Your task to perform on an android device: Open display settings Image 0: 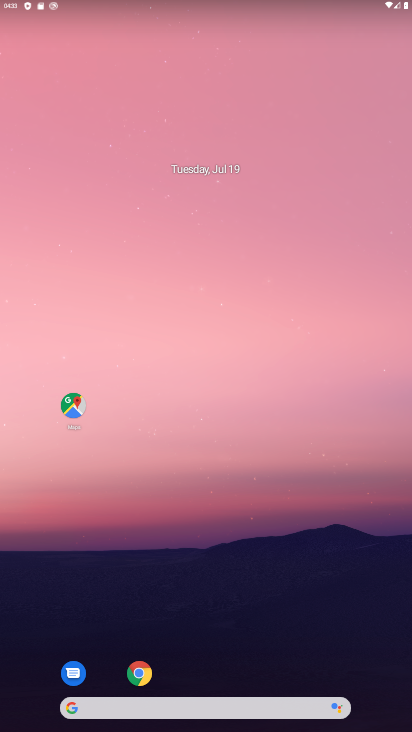
Step 0: drag from (236, 679) to (301, 1)
Your task to perform on an android device: Open display settings Image 1: 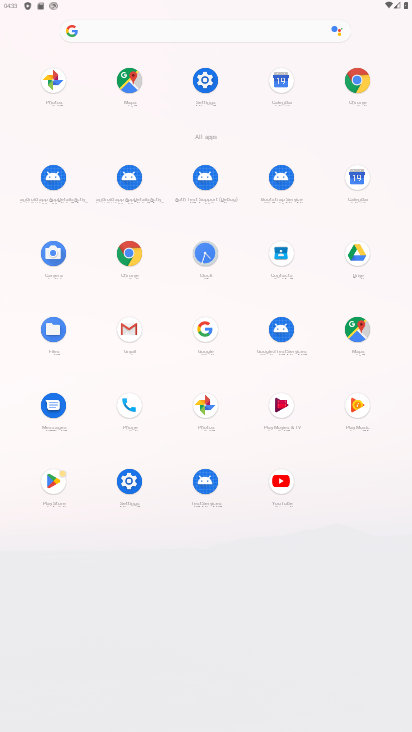
Step 1: click (125, 567)
Your task to perform on an android device: Open display settings Image 2: 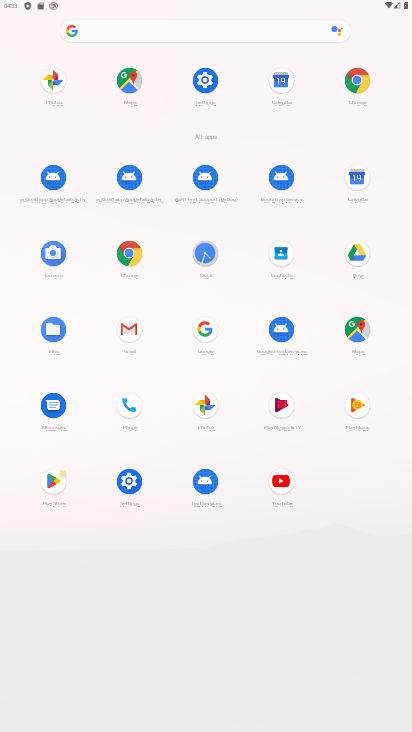
Step 2: click (128, 497)
Your task to perform on an android device: Open display settings Image 3: 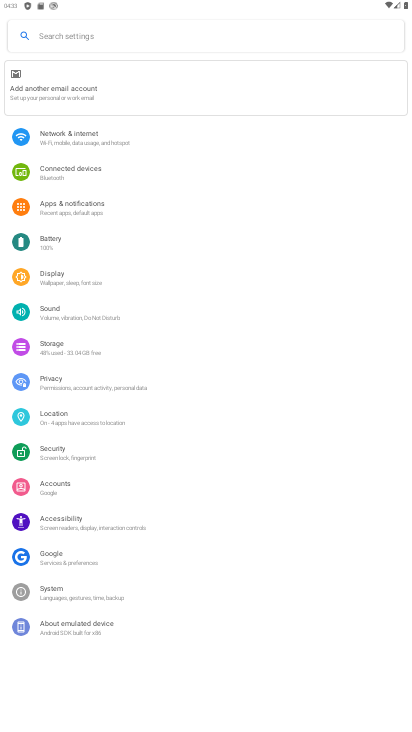
Step 3: click (64, 275)
Your task to perform on an android device: Open display settings Image 4: 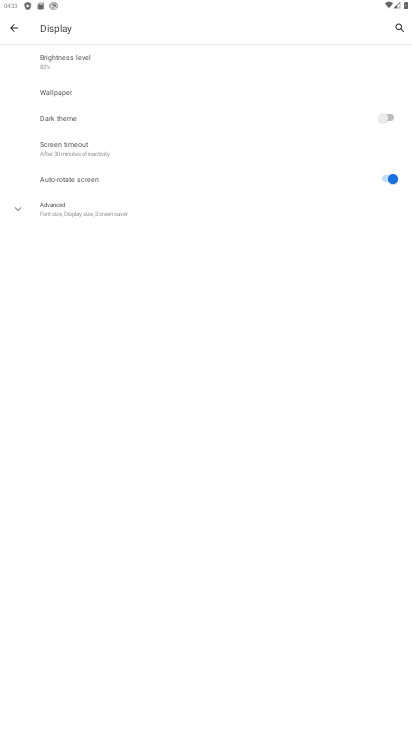
Step 4: task complete